Your task to perform on an android device: turn on showing notifications on the lock screen Image 0: 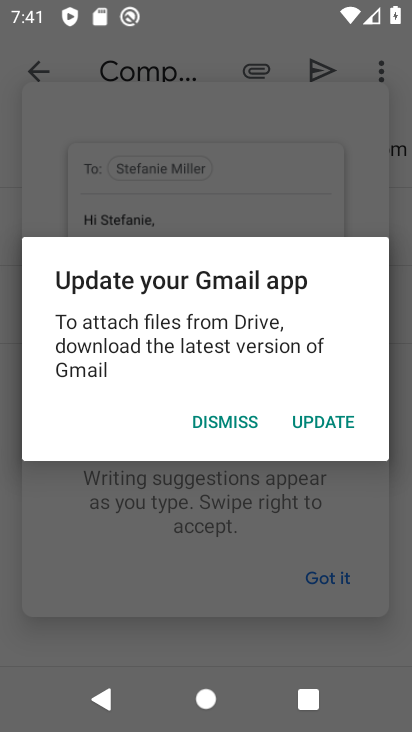
Step 0: press home button
Your task to perform on an android device: turn on showing notifications on the lock screen Image 1: 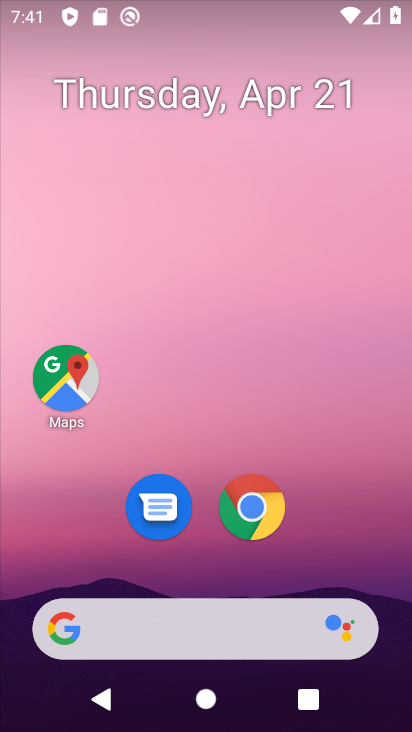
Step 1: drag from (318, 557) to (257, 0)
Your task to perform on an android device: turn on showing notifications on the lock screen Image 2: 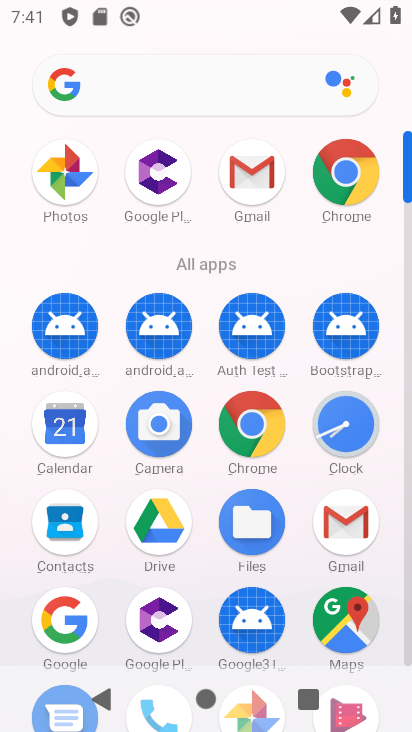
Step 2: drag from (200, 596) to (216, 191)
Your task to perform on an android device: turn on showing notifications on the lock screen Image 3: 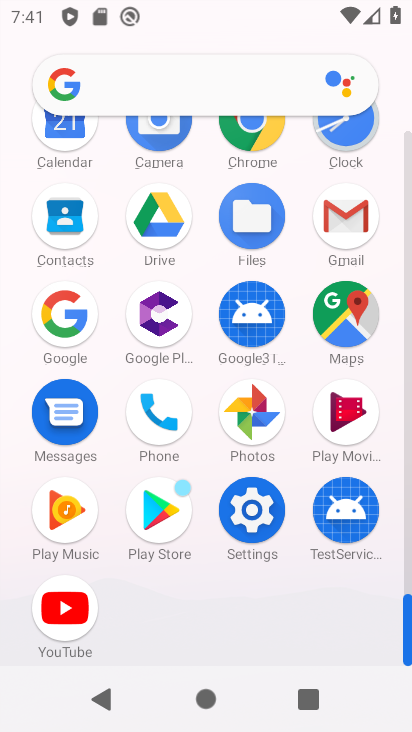
Step 3: click (250, 526)
Your task to perform on an android device: turn on showing notifications on the lock screen Image 4: 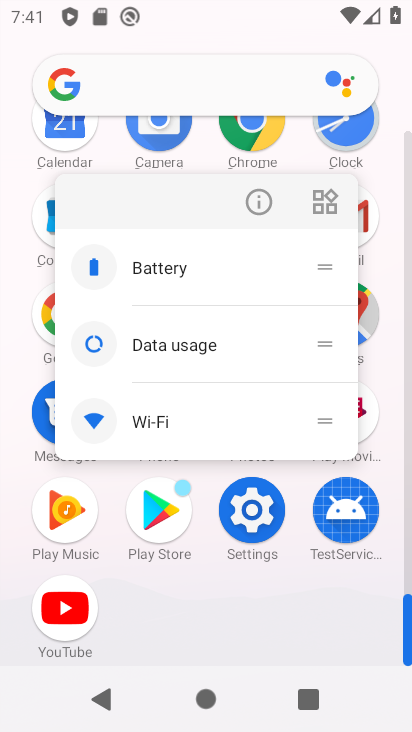
Step 4: click (253, 513)
Your task to perform on an android device: turn on showing notifications on the lock screen Image 5: 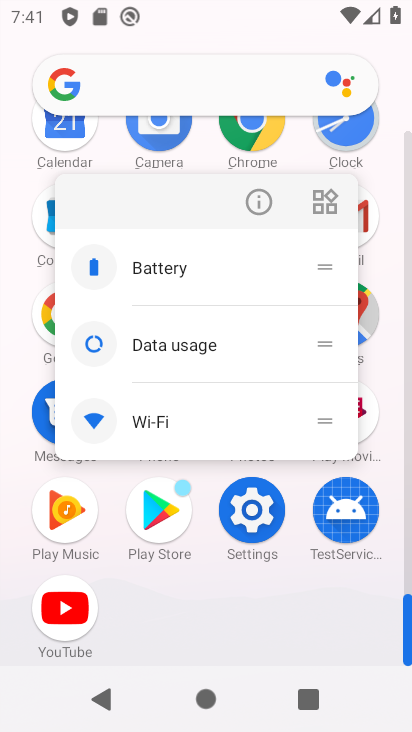
Step 5: click (257, 516)
Your task to perform on an android device: turn on showing notifications on the lock screen Image 6: 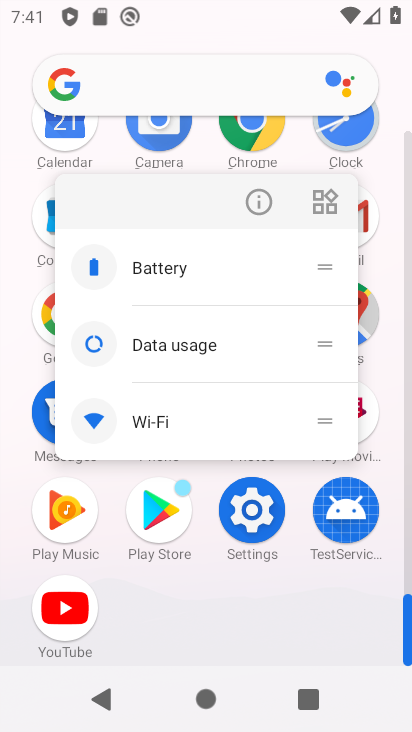
Step 6: click (256, 515)
Your task to perform on an android device: turn on showing notifications on the lock screen Image 7: 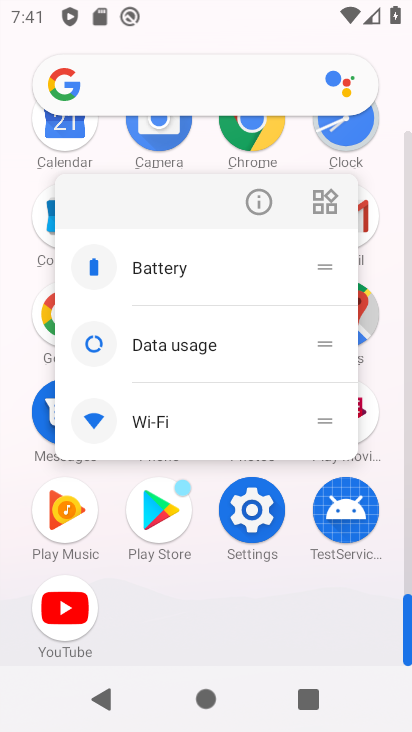
Step 7: click (245, 515)
Your task to perform on an android device: turn on showing notifications on the lock screen Image 8: 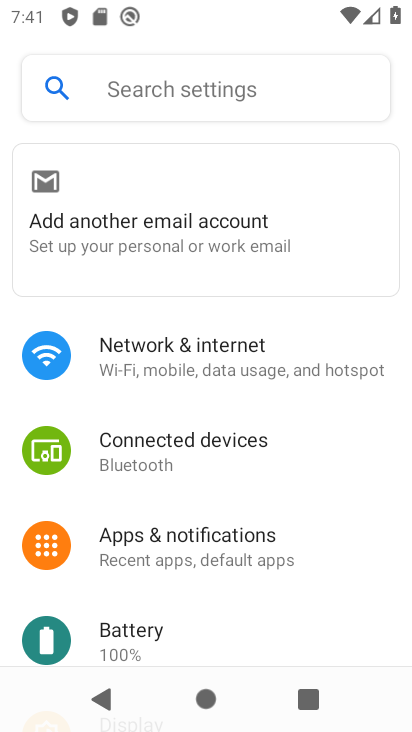
Step 8: drag from (261, 597) to (200, 68)
Your task to perform on an android device: turn on showing notifications on the lock screen Image 9: 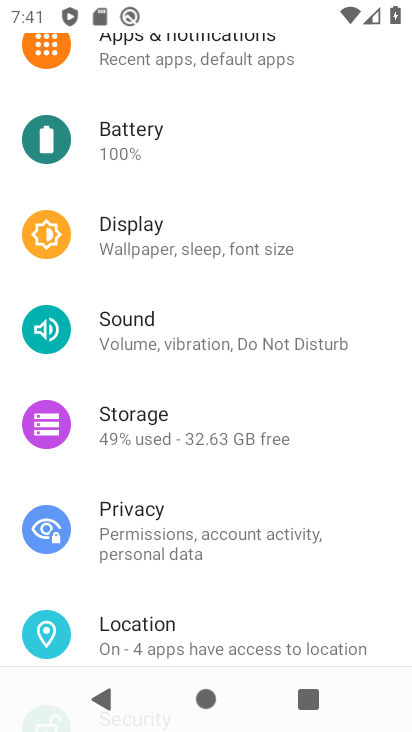
Step 9: drag from (168, 578) to (271, 114)
Your task to perform on an android device: turn on showing notifications on the lock screen Image 10: 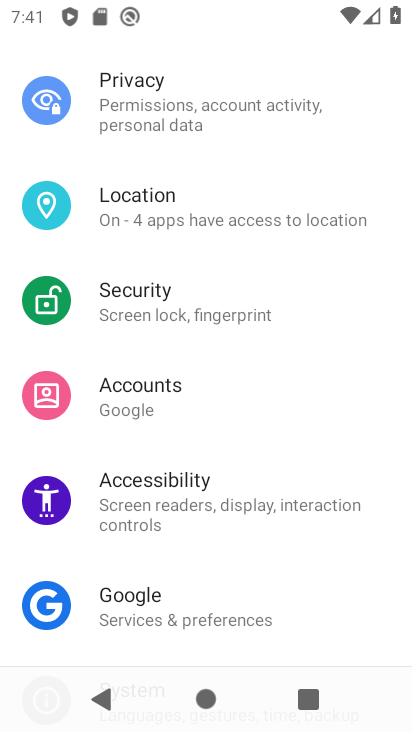
Step 10: drag from (119, 588) to (250, 185)
Your task to perform on an android device: turn on showing notifications on the lock screen Image 11: 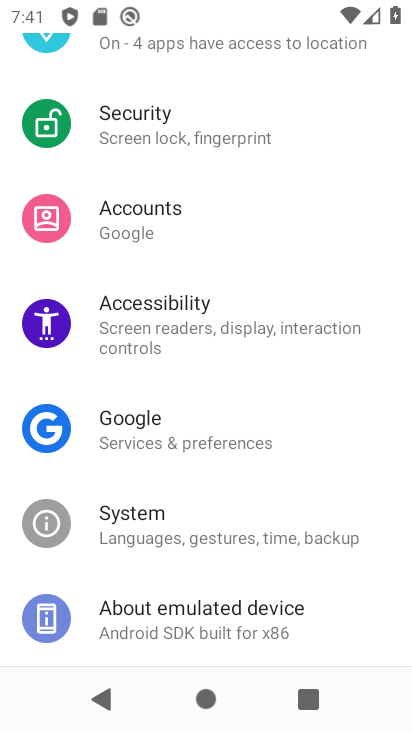
Step 11: drag from (216, 279) to (208, 727)
Your task to perform on an android device: turn on showing notifications on the lock screen Image 12: 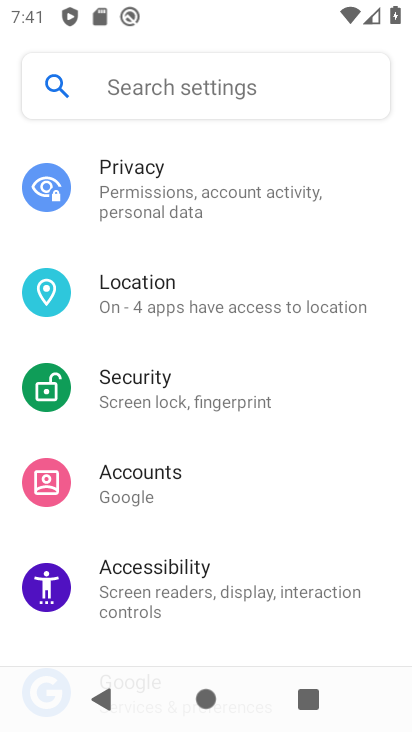
Step 12: drag from (236, 353) to (231, 727)
Your task to perform on an android device: turn on showing notifications on the lock screen Image 13: 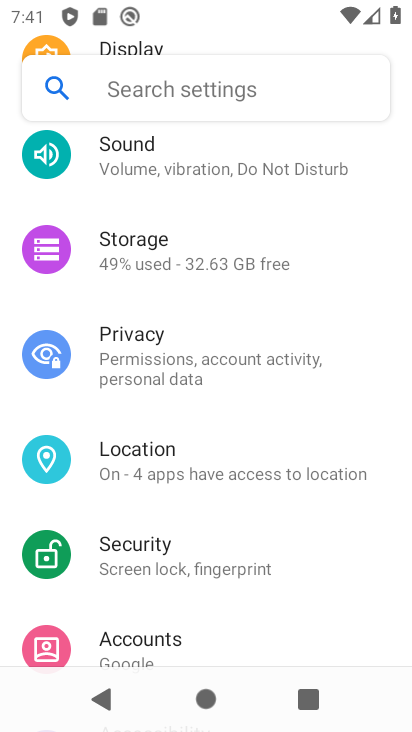
Step 13: drag from (223, 278) to (204, 646)
Your task to perform on an android device: turn on showing notifications on the lock screen Image 14: 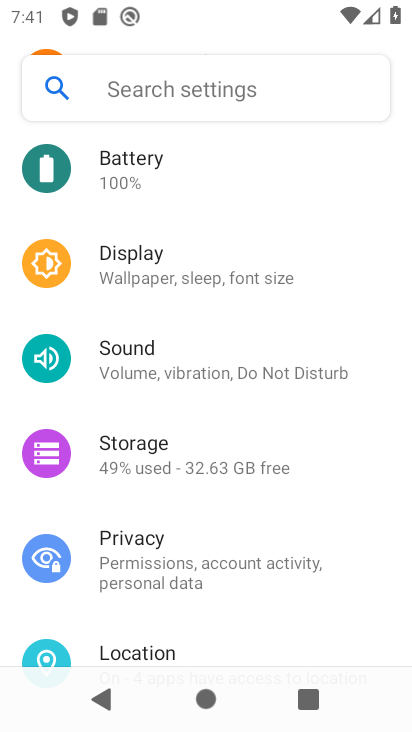
Step 14: drag from (232, 279) to (251, 730)
Your task to perform on an android device: turn on showing notifications on the lock screen Image 15: 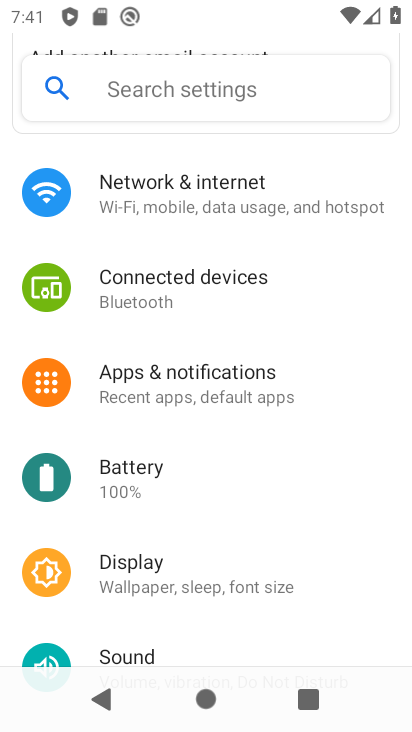
Step 15: drag from (229, 322) to (238, 718)
Your task to perform on an android device: turn on showing notifications on the lock screen Image 16: 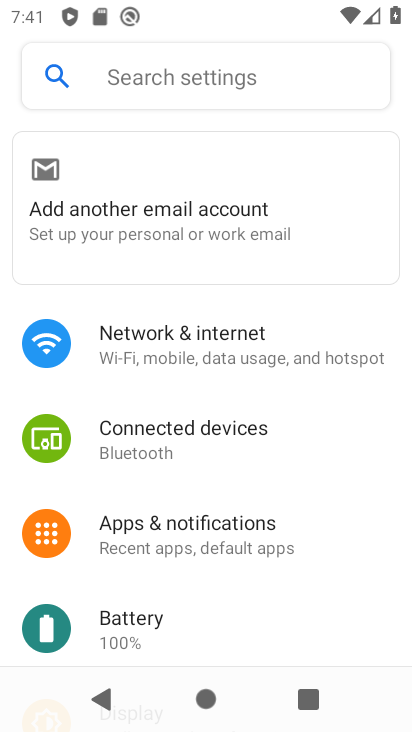
Step 16: click (161, 533)
Your task to perform on an android device: turn on showing notifications on the lock screen Image 17: 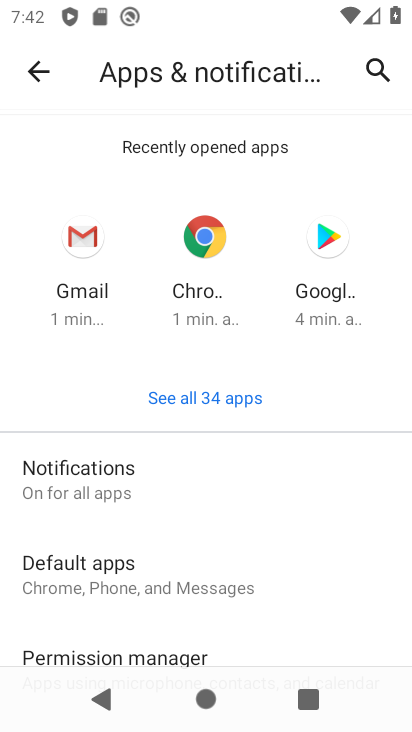
Step 17: click (93, 487)
Your task to perform on an android device: turn on showing notifications on the lock screen Image 18: 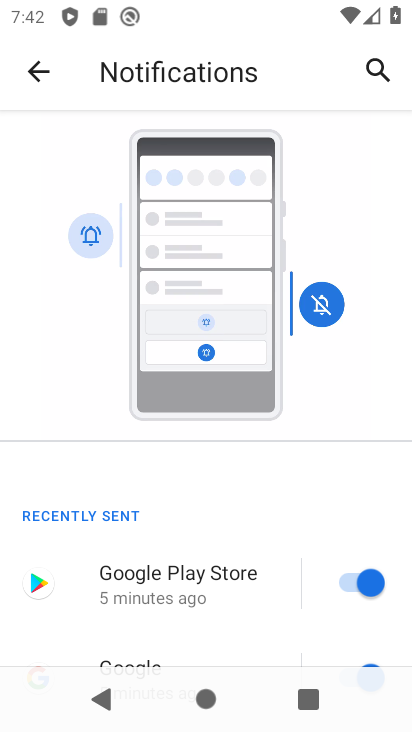
Step 18: drag from (224, 616) to (326, 192)
Your task to perform on an android device: turn on showing notifications on the lock screen Image 19: 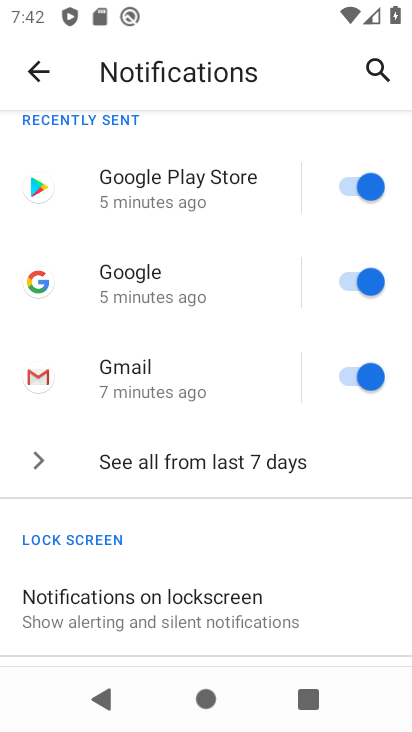
Step 19: click (167, 607)
Your task to perform on an android device: turn on showing notifications on the lock screen Image 20: 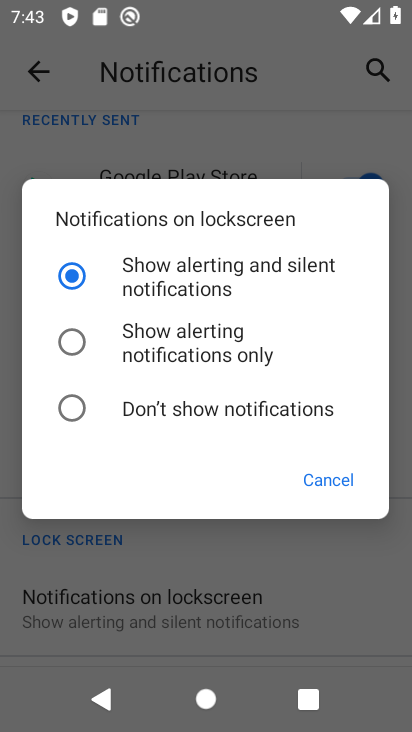
Step 20: click (202, 337)
Your task to perform on an android device: turn on showing notifications on the lock screen Image 21: 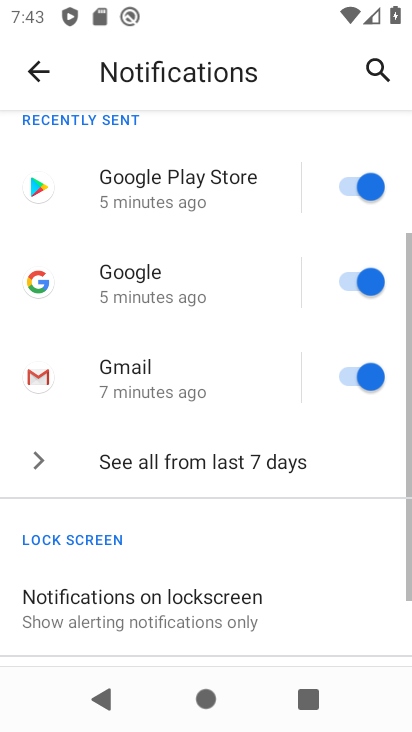
Step 21: task complete